Your task to perform on an android device: set the timer Image 0: 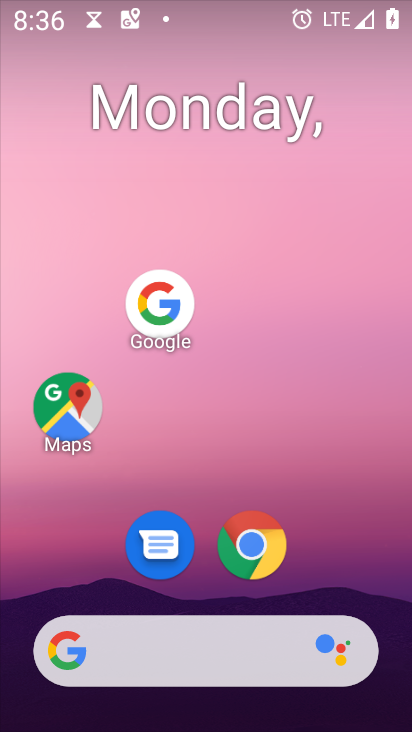
Step 0: drag from (185, 637) to (298, 164)
Your task to perform on an android device: set the timer Image 1: 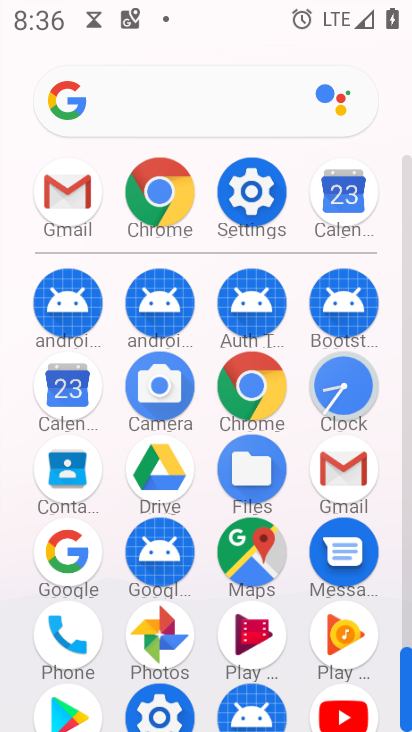
Step 1: click (343, 400)
Your task to perform on an android device: set the timer Image 2: 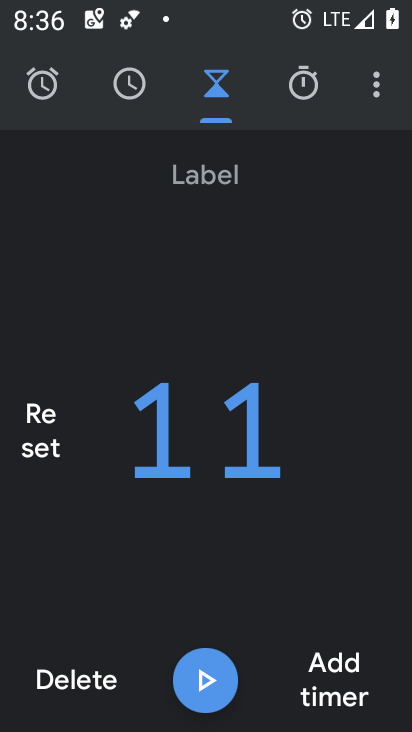
Step 2: click (103, 680)
Your task to perform on an android device: set the timer Image 3: 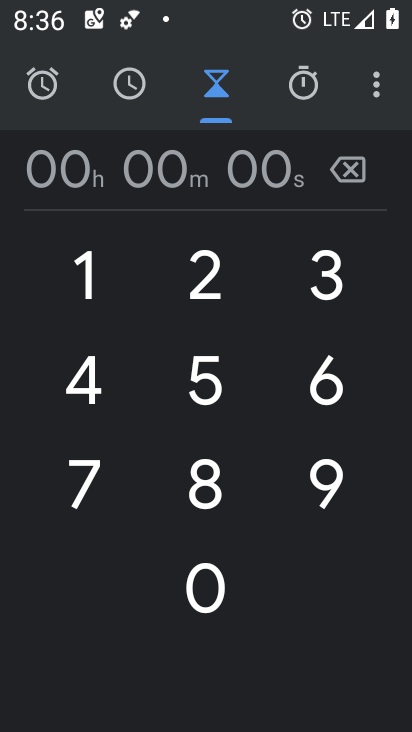
Step 3: click (318, 384)
Your task to perform on an android device: set the timer Image 4: 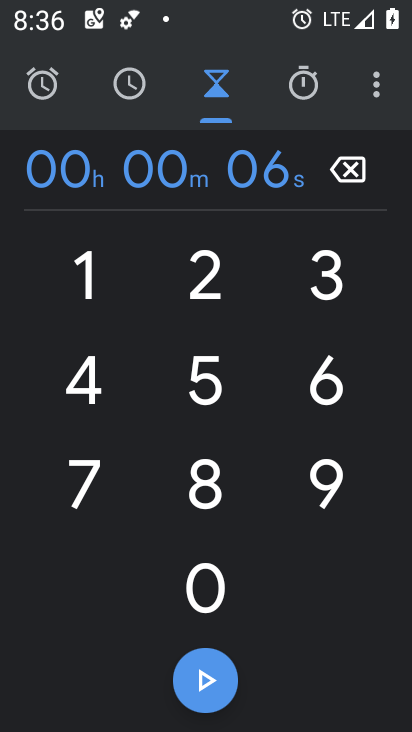
Step 4: click (199, 397)
Your task to perform on an android device: set the timer Image 5: 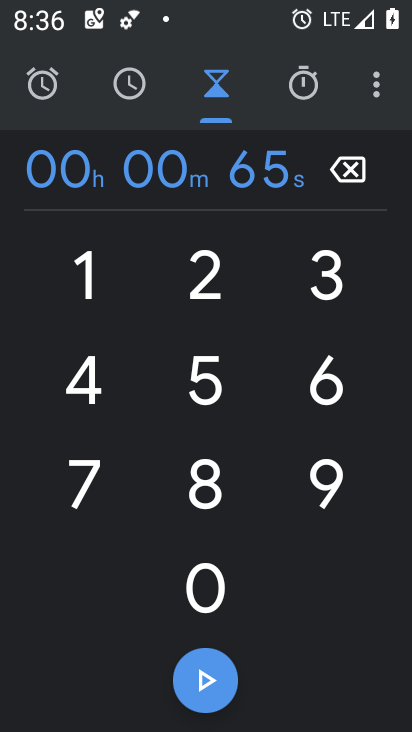
Step 5: click (203, 679)
Your task to perform on an android device: set the timer Image 6: 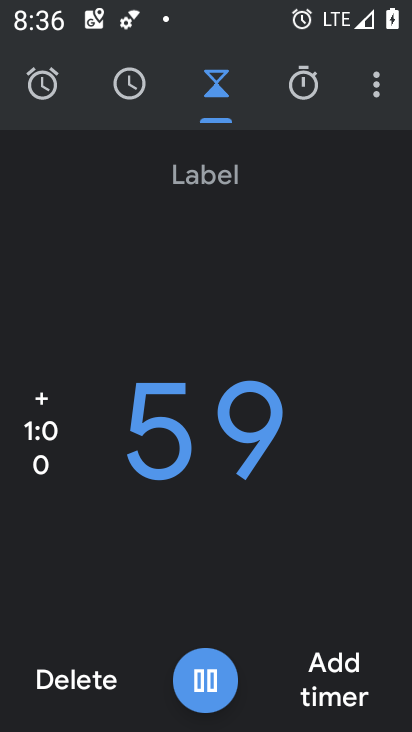
Step 6: click (203, 681)
Your task to perform on an android device: set the timer Image 7: 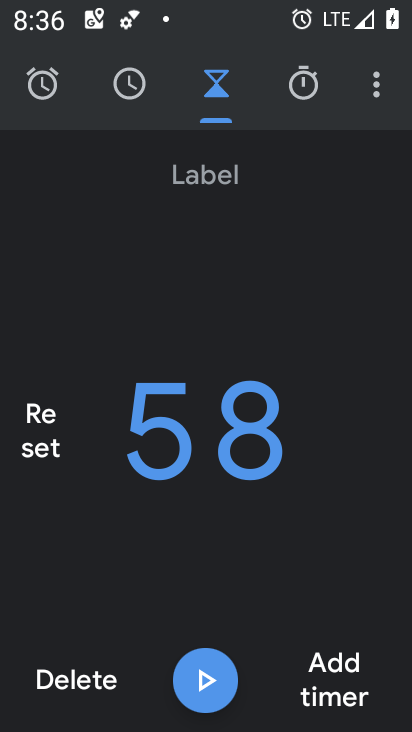
Step 7: task complete